Your task to perform on an android device: allow notifications from all sites in the chrome app Image 0: 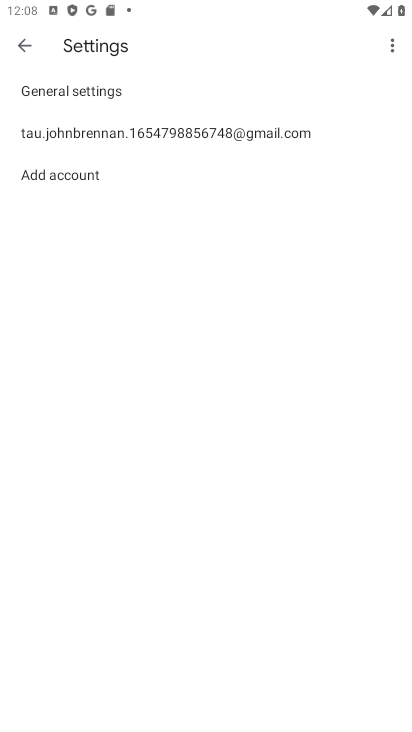
Step 0: press home button
Your task to perform on an android device: allow notifications from all sites in the chrome app Image 1: 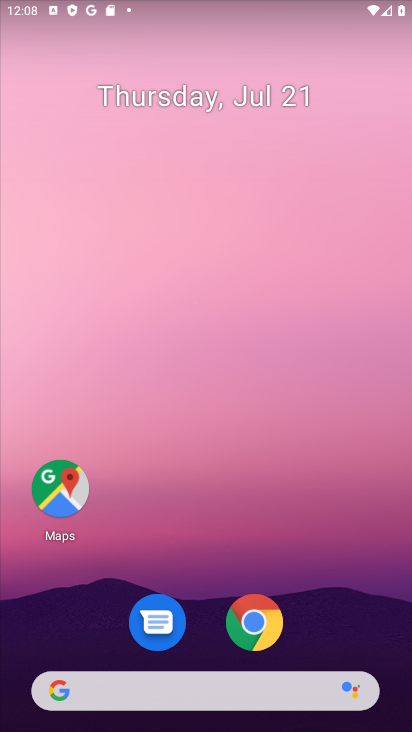
Step 1: click (251, 620)
Your task to perform on an android device: allow notifications from all sites in the chrome app Image 2: 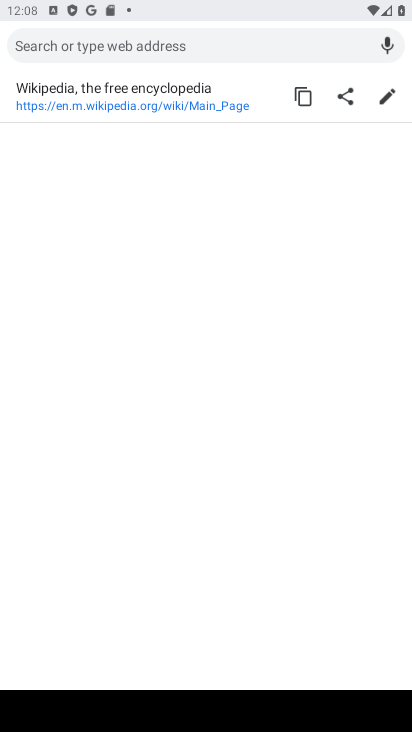
Step 2: press back button
Your task to perform on an android device: allow notifications from all sites in the chrome app Image 3: 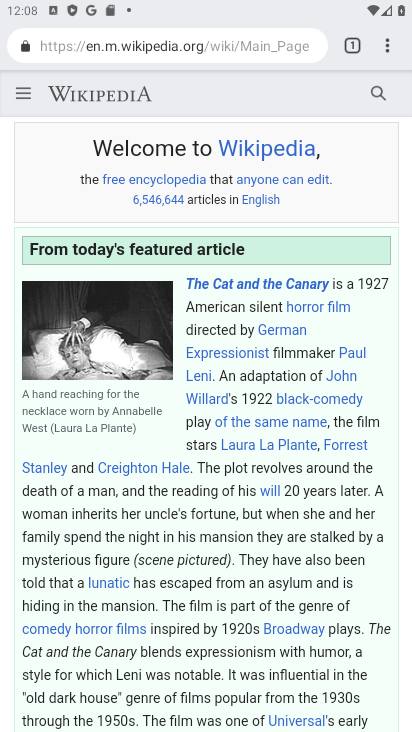
Step 3: click (389, 53)
Your task to perform on an android device: allow notifications from all sites in the chrome app Image 4: 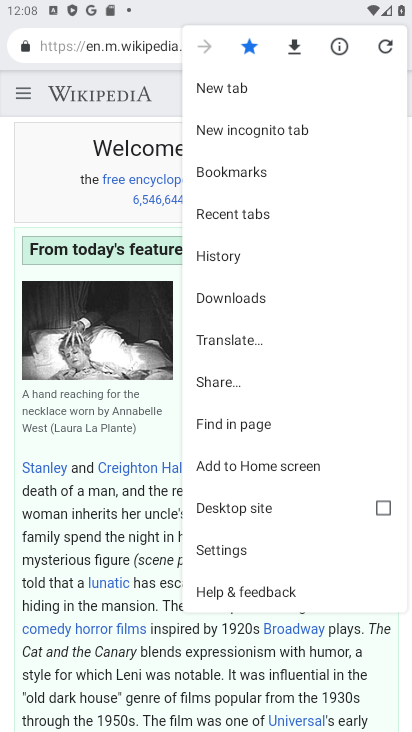
Step 4: click (226, 548)
Your task to perform on an android device: allow notifications from all sites in the chrome app Image 5: 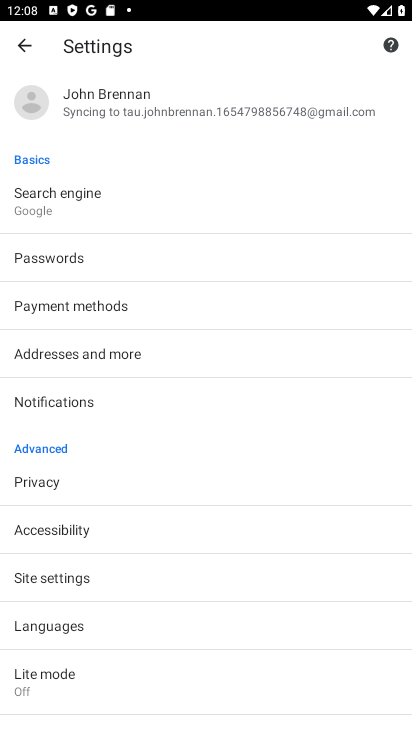
Step 5: click (77, 570)
Your task to perform on an android device: allow notifications from all sites in the chrome app Image 6: 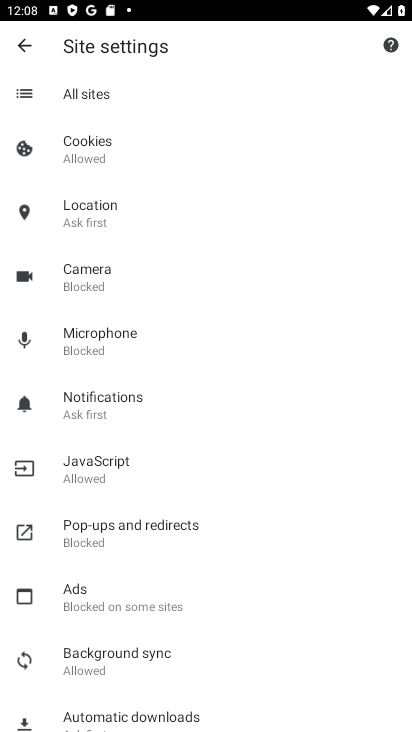
Step 6: click (58, 413)
Your task to perform on an android device: allow notifications from all sites in the chrome app Image 7: 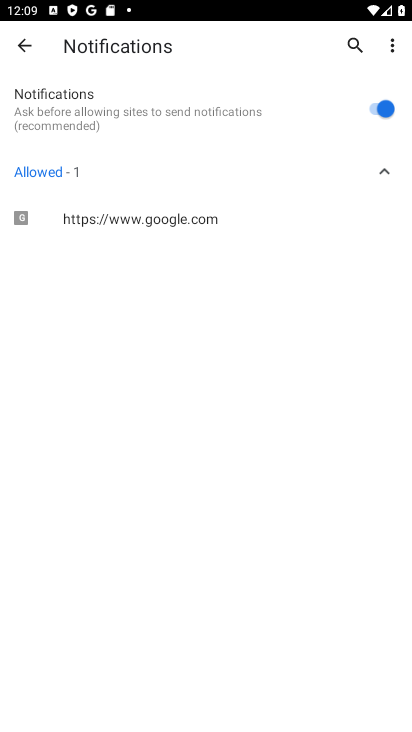
Step 7: task complete